Your task to perform on an android device: turn on bluetooth scan Image 0: 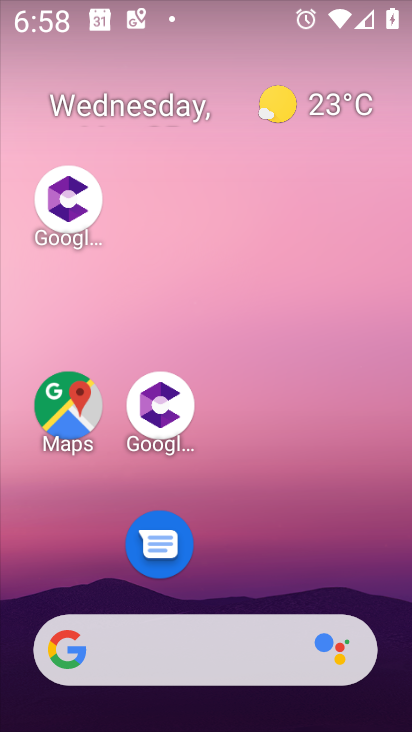
Step 0: drag from (291, 509) to (178, 43)
Your task to perform on an android device: turn on bluetooth scan Image 1: 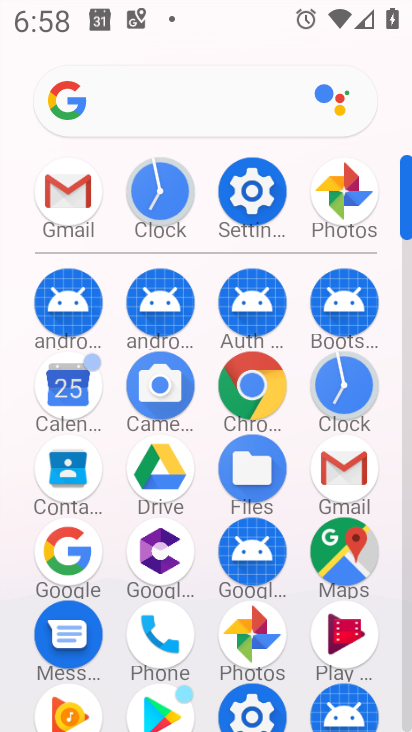
Step 1: click (259, 195)
Your task to perform on an android device: turn on bluetooth scan Image 2: 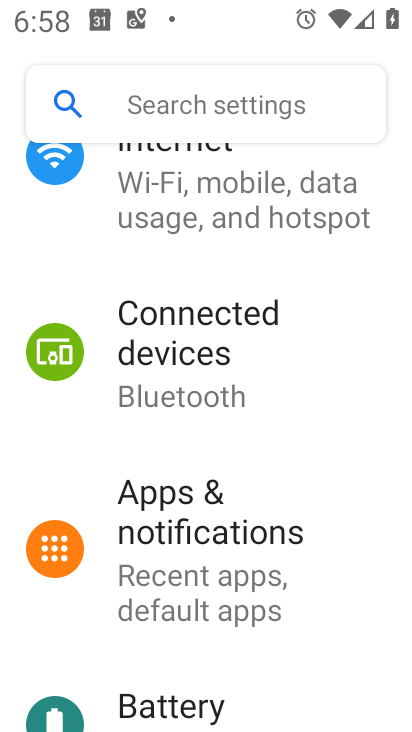
Step 2: drag from (276, 450) to (211, 201)
Your task to perform on an android device: turn on bluetooth scan Image 3: 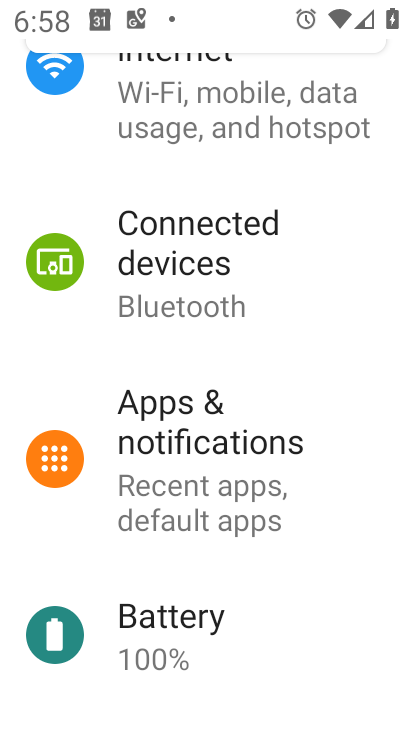
Step 3: click (211, 201)
Your task to perform on an android device: turn on bluetooth scan Image 4: 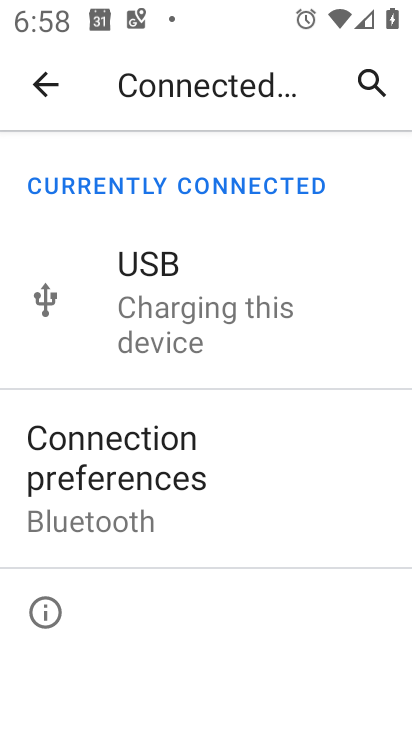
Step 4: click (43, 87)
Your task to perform on an android device: turn on bluetooth scan Image 5: 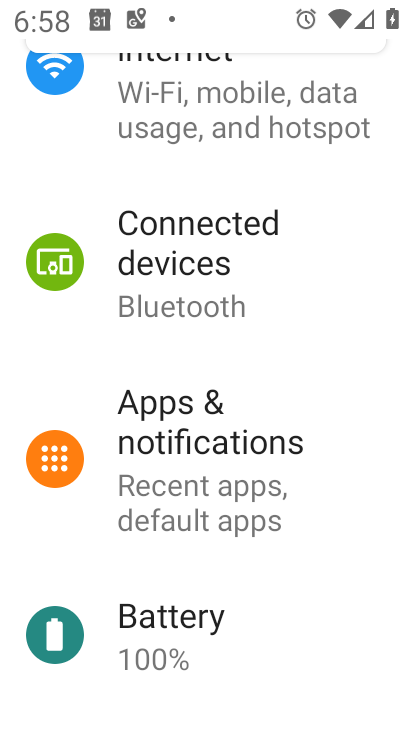
Step 5: drag from (287, 600) to (248, 297)
Your task to perform on an android device: turn on bluetooth scan Image 6: 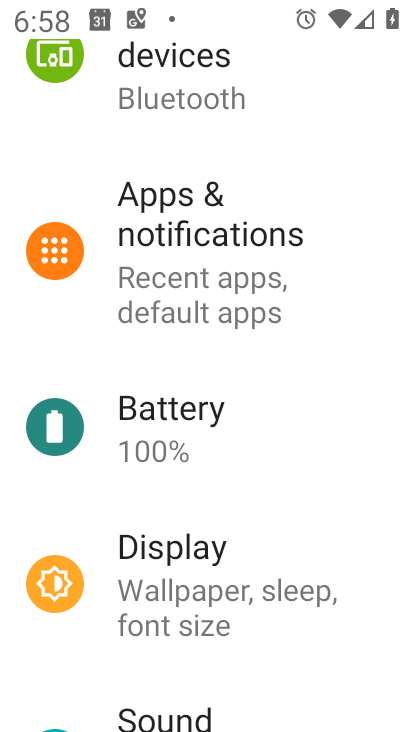
Step 6: drag from (310, 522) to (219, 113)
Your task to perform on an android device: turn on bluetooth scan Image 7: 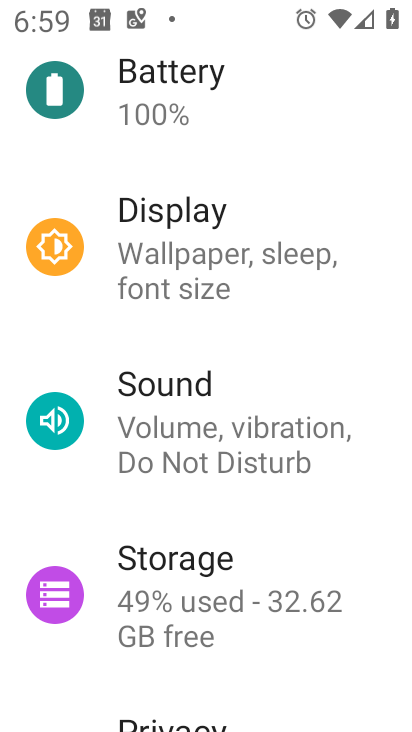
Step 7: drag from (283, 516) to (260, 241)
Your task to perform on an android device: turn on bluetooth scan Image 8: 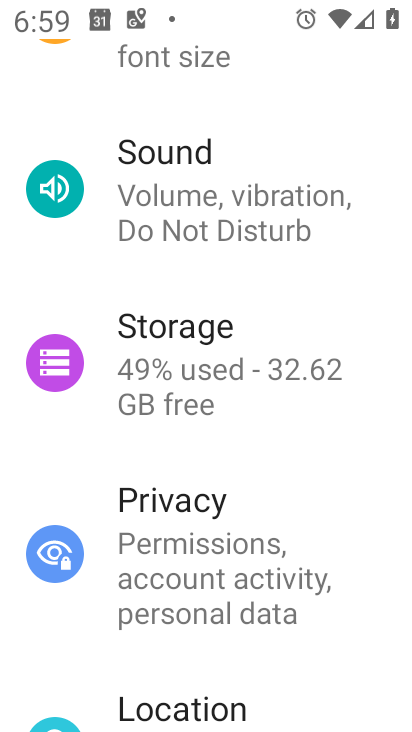
Step 8: drag from (280, 476) to (230, 208)
Your task to perform on an android device: turn on bluetooth scan Image 9: 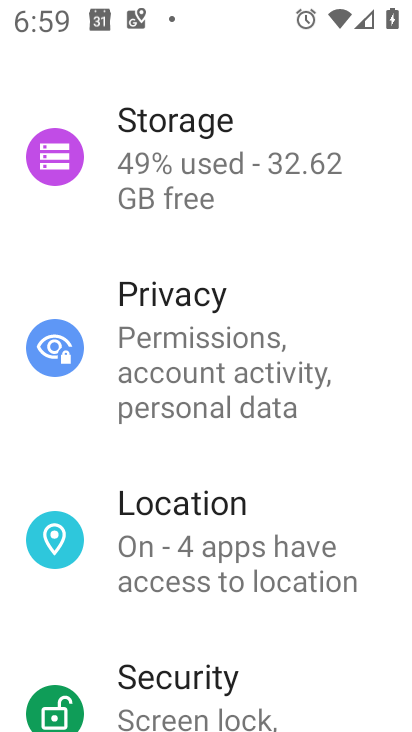
Step 9: click (192, 524)
Your task to perform on an android device: turn on bluetooth scan Image 10: 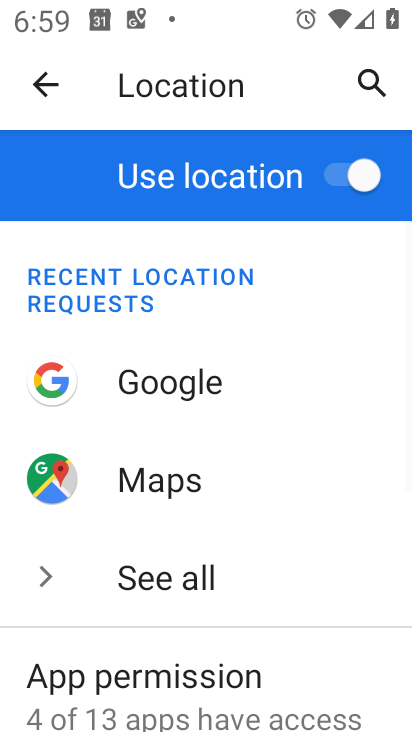
Step 10: drag from (281, 505) to (218, 154)
Your task to perform on an android device: turn on bluetooth scan Image 11: 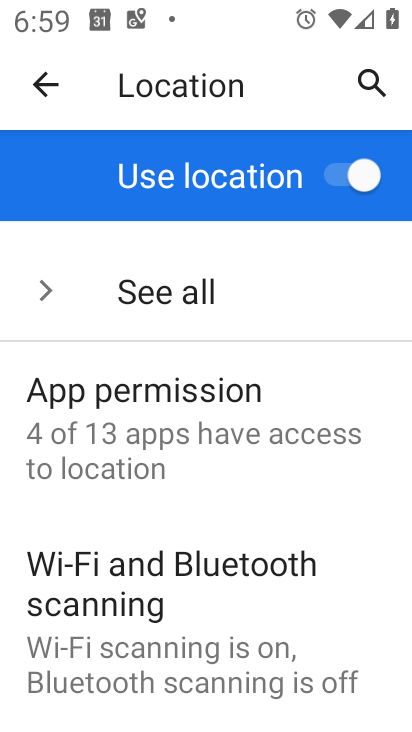
Step 11: click (100, 586)
Your task to perform on an android device: turn on bluetooth scan Image 12: 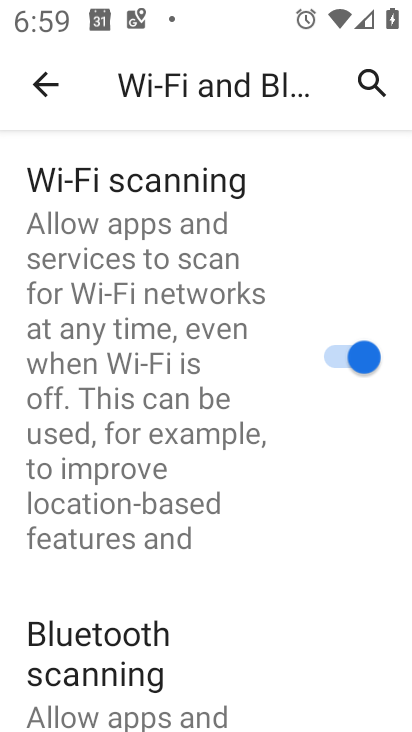
Step 12: drag from (270, 627) to (208, 325)
Your task to perform on an android device: turn on bluetooth scan Image 13: 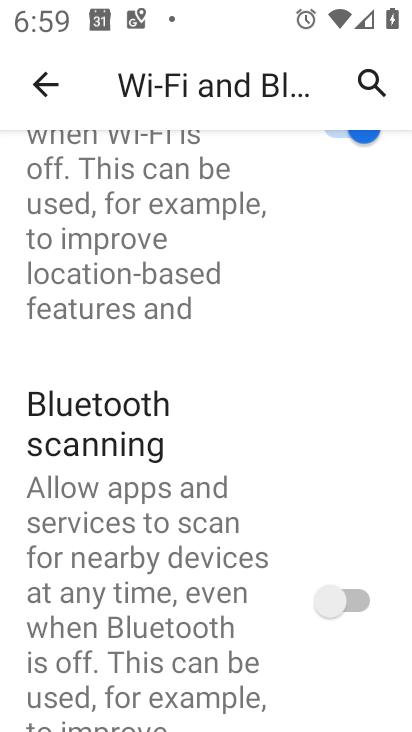
Step 13: click (349, 610)
Your task to perform on an android device: turn on bluetooth scan Image 14: 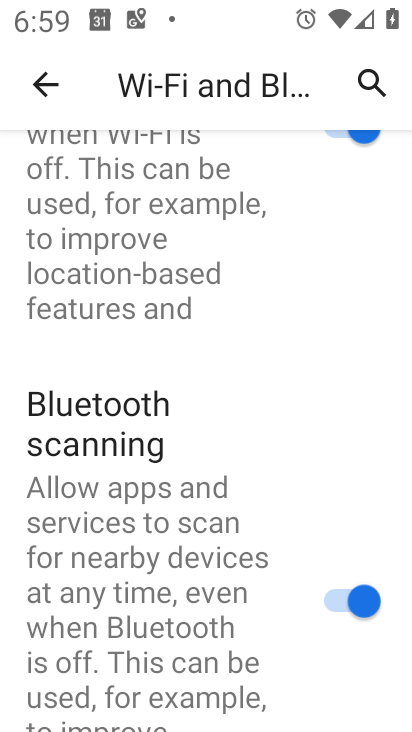
Step 14: task complete